Your task to perform on an android device: open device folders in google photos Image 0: 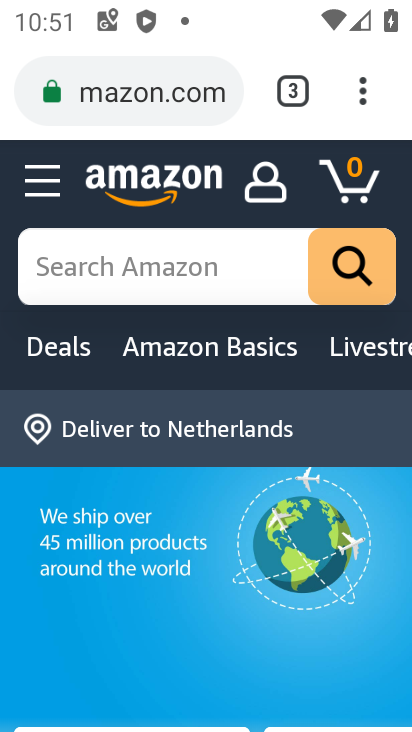
Step 0: press home button
Your task to perform on an android device: open device folders in google photos Image 1: 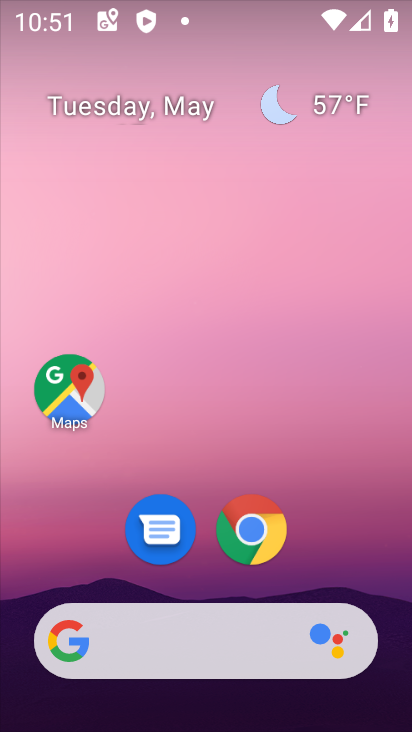
Step 1: drag from (193, 565) to (260, 89)
Your task to perform on an android device: open device folders in google photos Image 2: 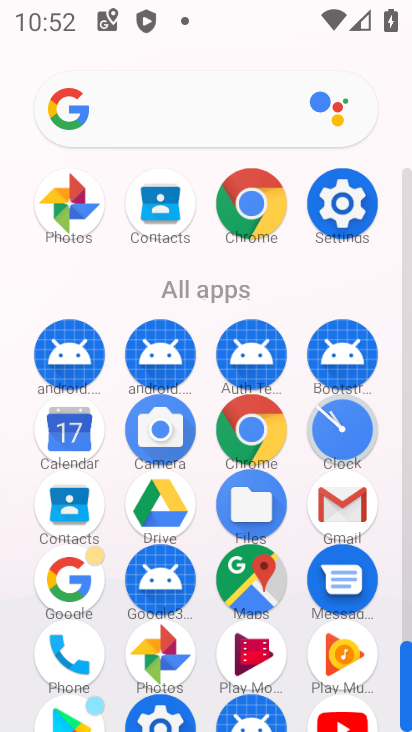
Step 2: click (67, 218)
Your task to perform on an android device: open device folders in google photos Image 3: 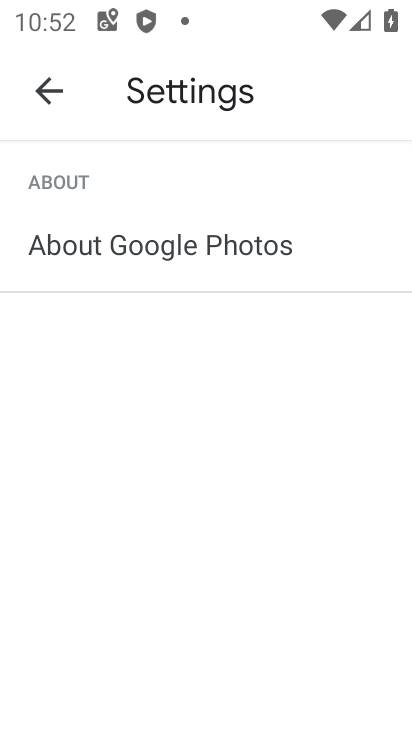
Step 3: click (50, 75)
Your task to perform on an android device: open device folders in google photos Image 4: 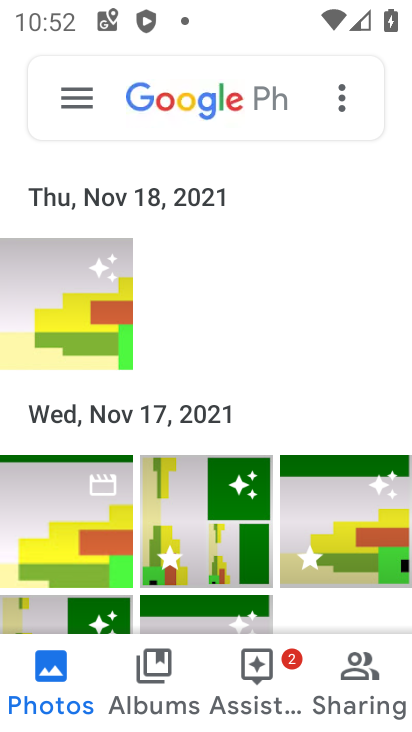
Step 4: click (50, 75)
Your task to perform on an android device: open device folders in google photos Image 5: 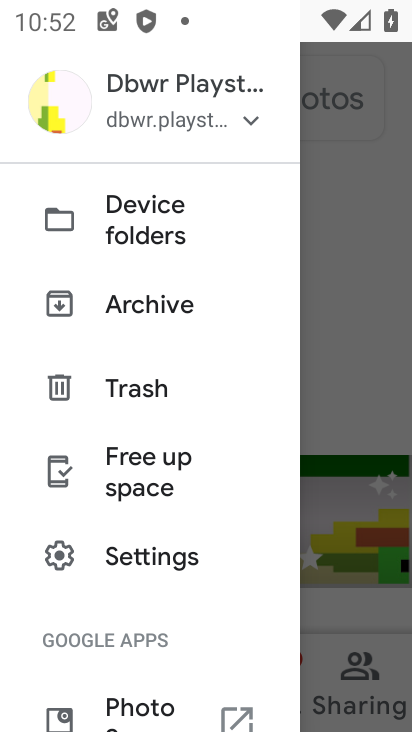
Step 5: click (117, 255)
Your task to perform on an android device: open device folders in google photos Image 6: 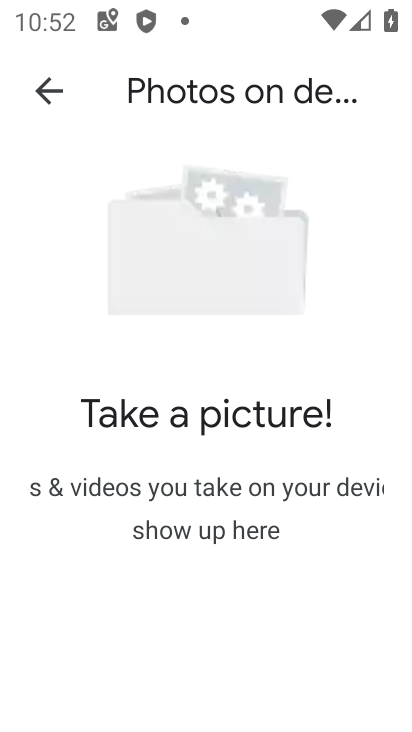
Step 6: task complete